Your task to perform on an android device: When is my next meeting? Image 0: 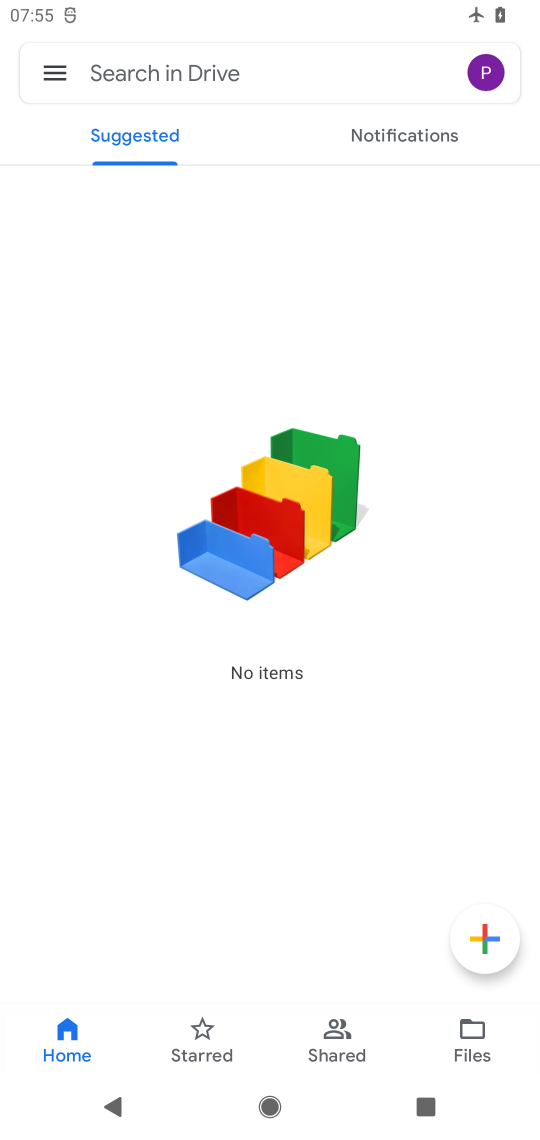
Step 0: press home button
Your task to perform on an android device: When is my next meeting? Image 1: 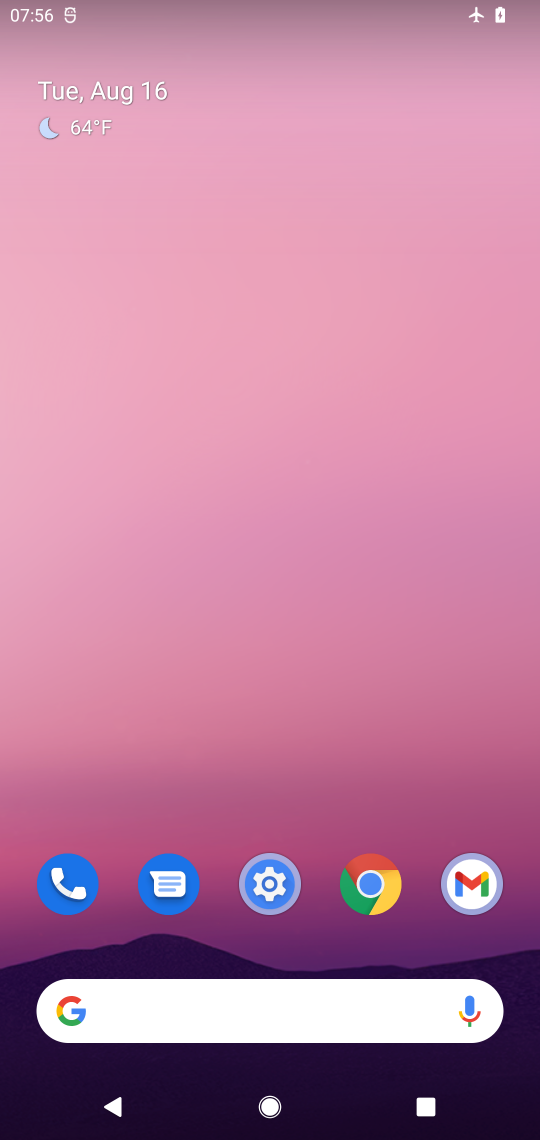
Step 1: drag from (342, 789) to (272, 26)
Your task to perform on an android device: When is my next meeting? Image 2: 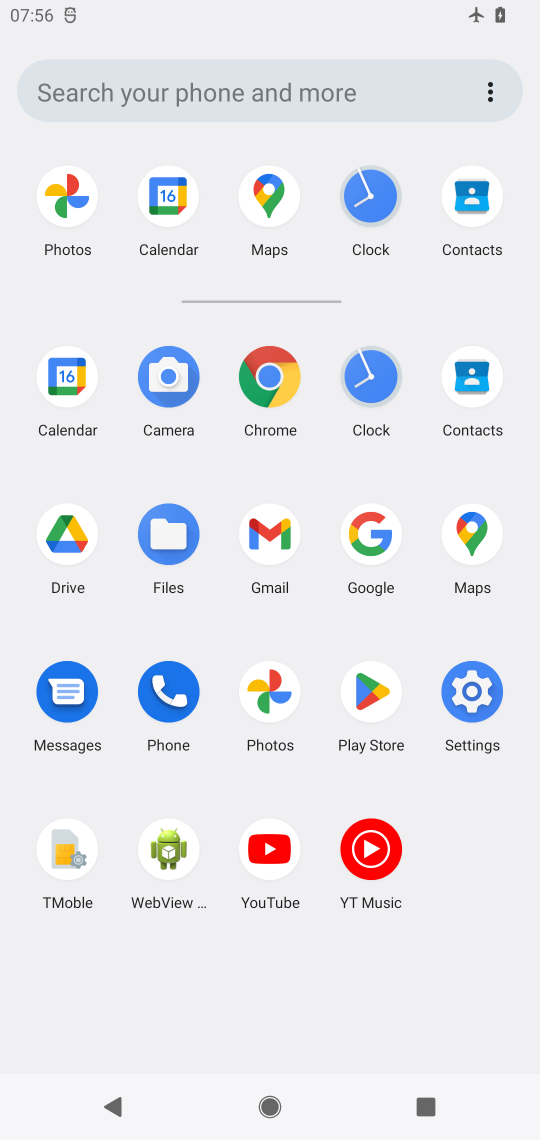
Step 2: click (59, 370)
Your task to perform on an android device: When is my next meeting? Image 3: 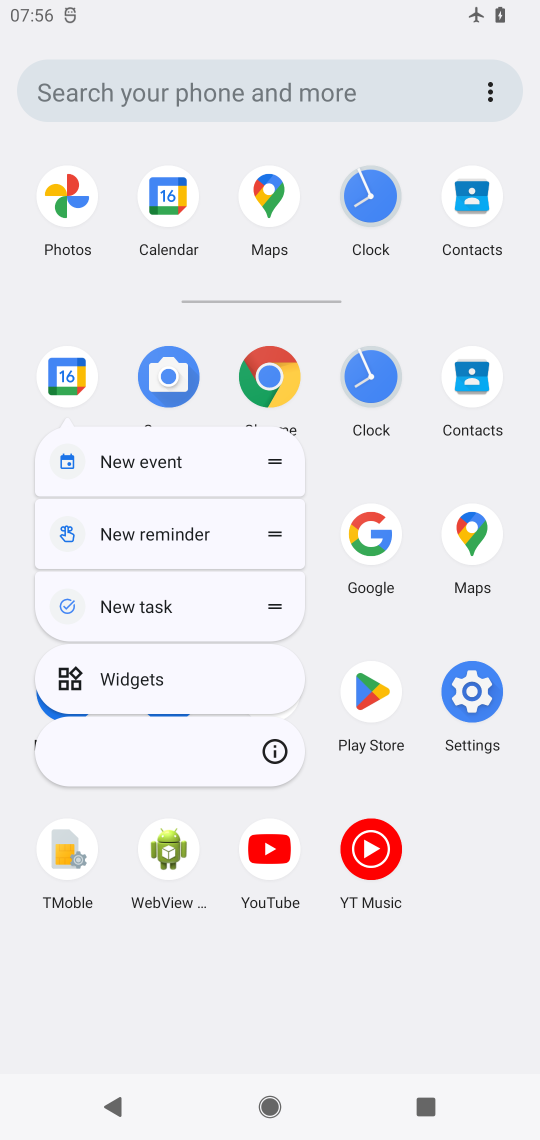
Step 3: click (59, 370)
Your task to perform on an android device: When is my next meeting? Image 4: 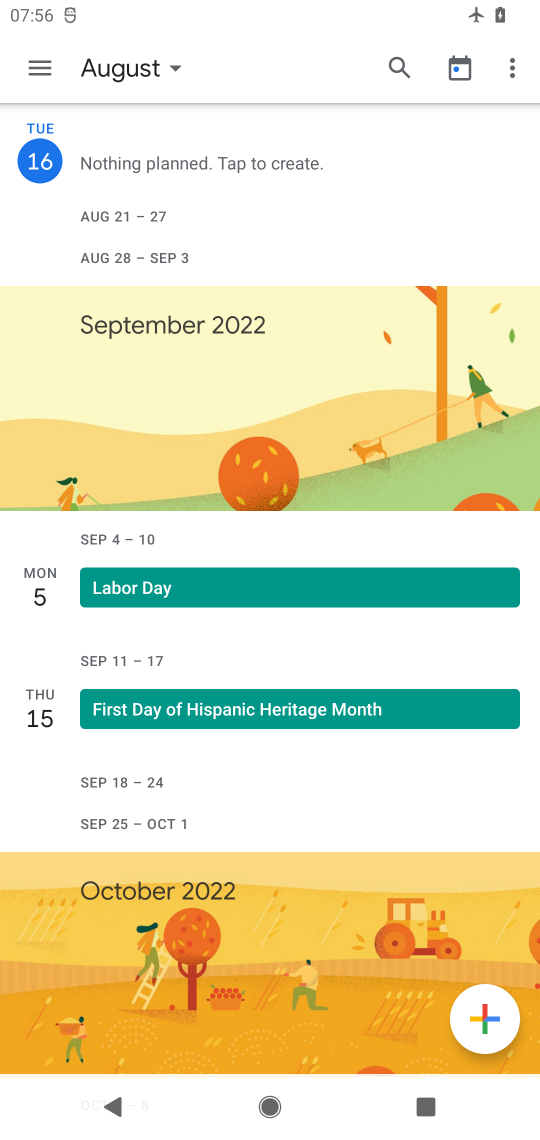
Step 4: click (42, 67)
Your task to perform on an android device: When is my next meeting? Image 5: 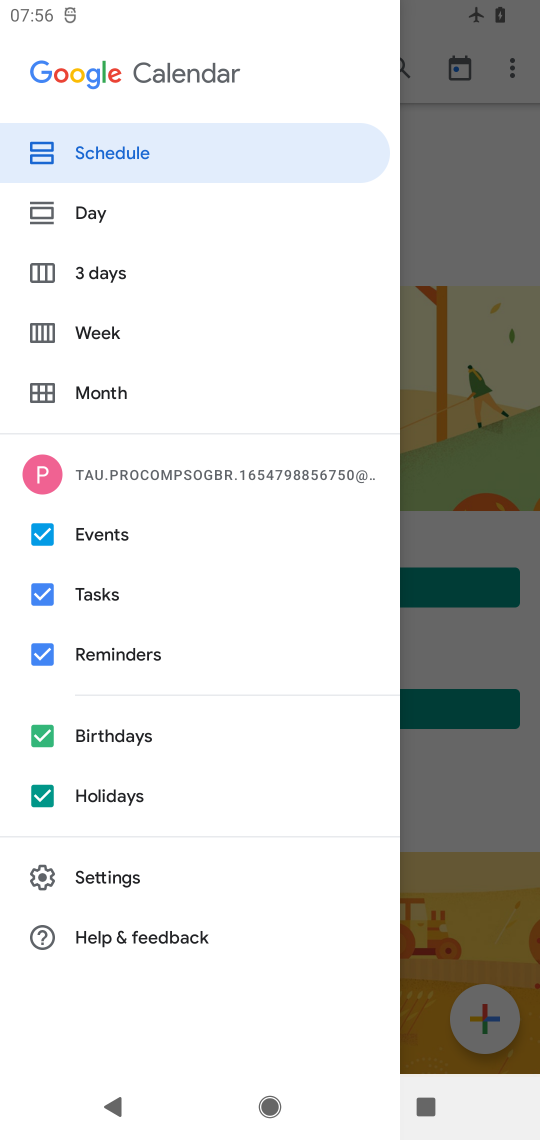
Step 5: click (114, 157)
Your task to perform on an android device: When is my next meeting? Image 6: 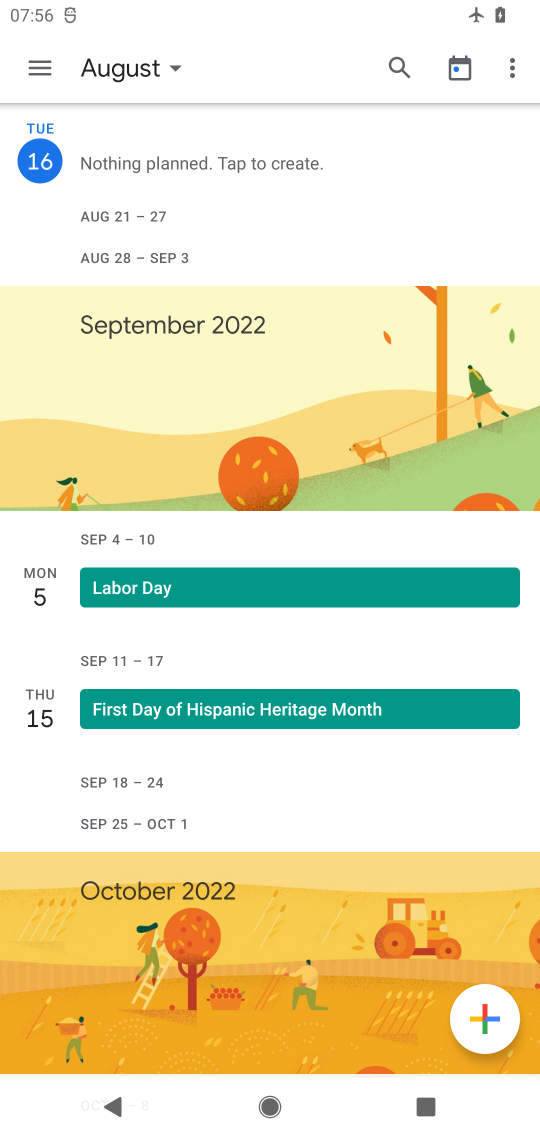
Step 6: task complete